Your task to perform on an android device: check battery use Image 0: 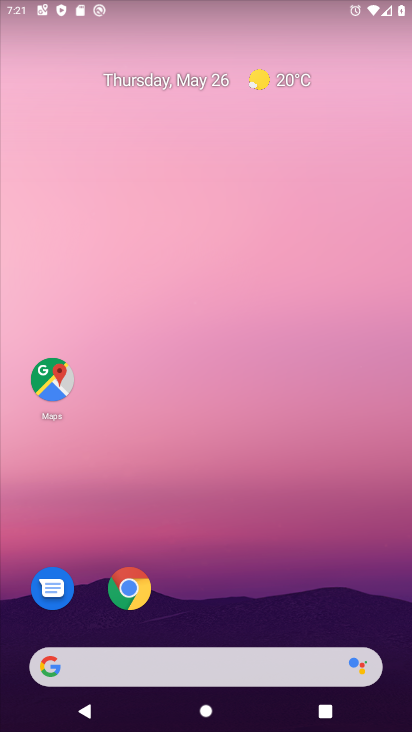
Step 0: drag from (376, 647) to (342, 5)
Your task to perform on an android device: check battery use Image 1: 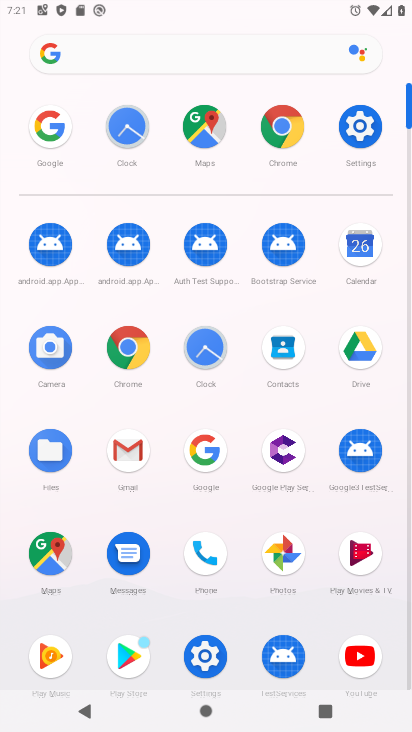
Step 1: click (355, 117)
Your task to perform on an android device: check battery use Image 2: 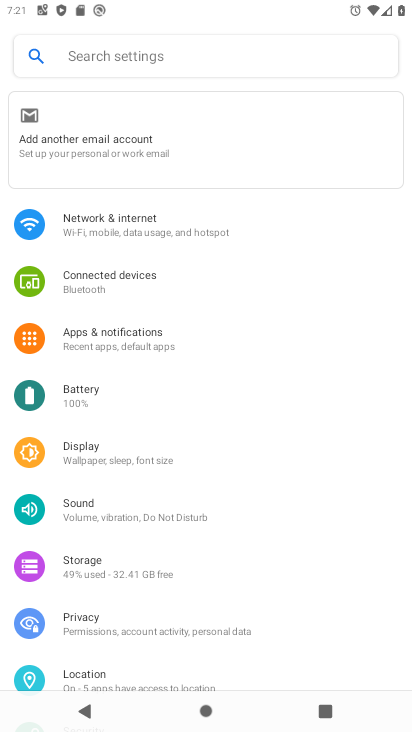
Step 2: click (86, 398)
Your task to perform on an android device: check battery use Image 3: 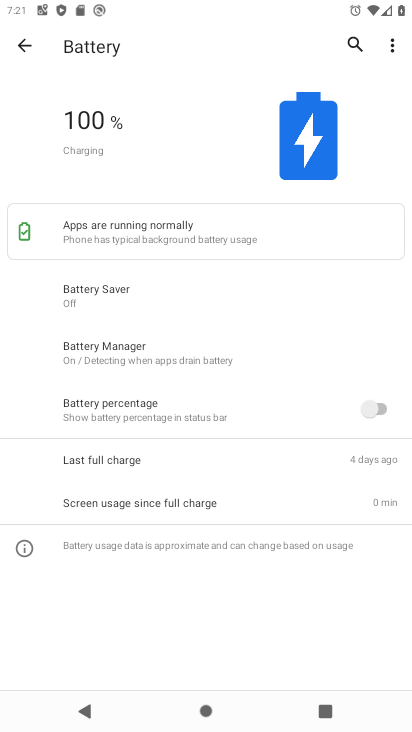
Step 3: click (392, 37)
Your task to perform on an android device: check battery use Image 4: 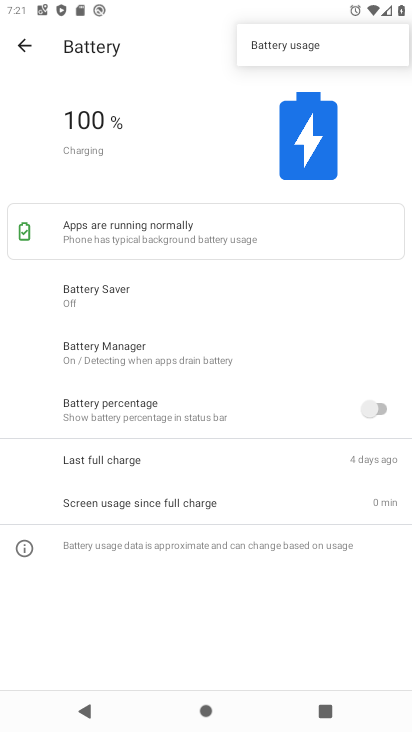
Step 4: click (325, 46)
Your task to perform on an android device: check battery use Image 5: 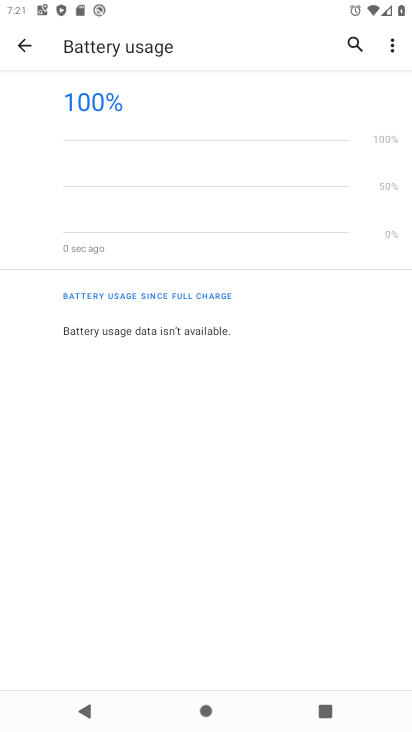
Step 5: task complete